Your task to perform on an android device: turn off picture-in-picture Image 0: 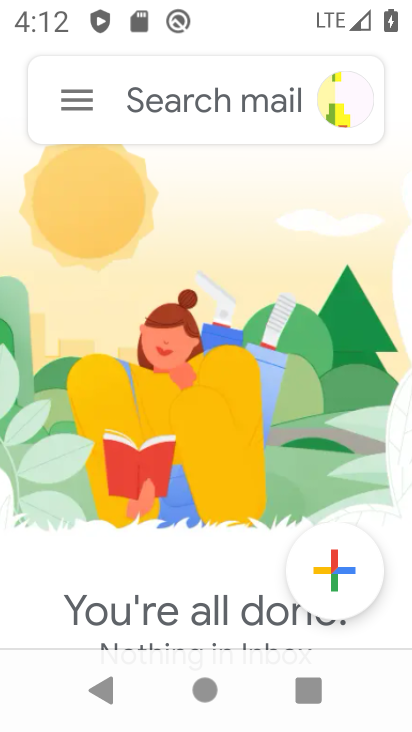
Step 0: press home button
Your task to perform on an android device: turn off picture-in-picture Image 1: 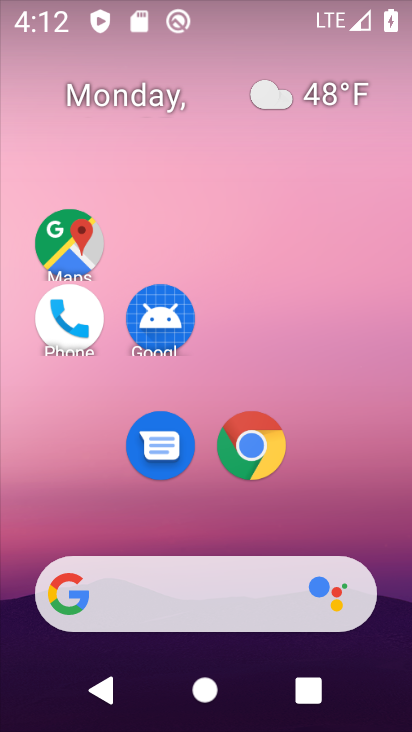
Step 1: drag from (321, 525) to (256, 68)
Your task to perform on an android device: turn off picture-in-picture Image 2: 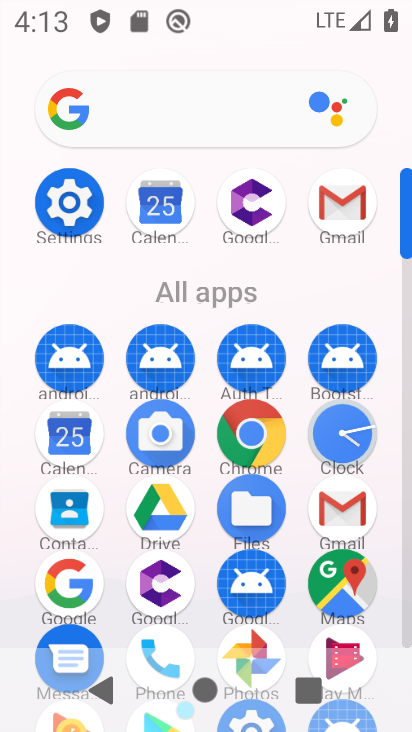
Step 2: click (69, 222)
Your task to perform on an android device: turn off picture-in-picture Image 3: 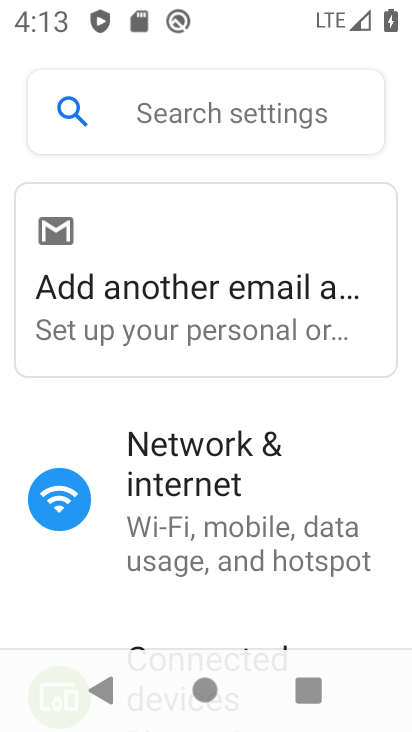
Step 3: drag from (259, 515) to (252, 107)
Your task to perform on an android device: turn off picture-in-picture Image 4: 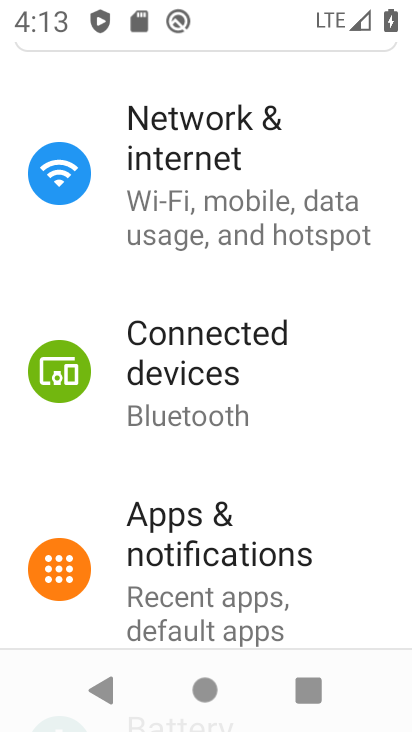
Step 4: drag from (221, 505) to (225, 207)
Your task to perform on an android device: turn off picture-in-picture Image 5: 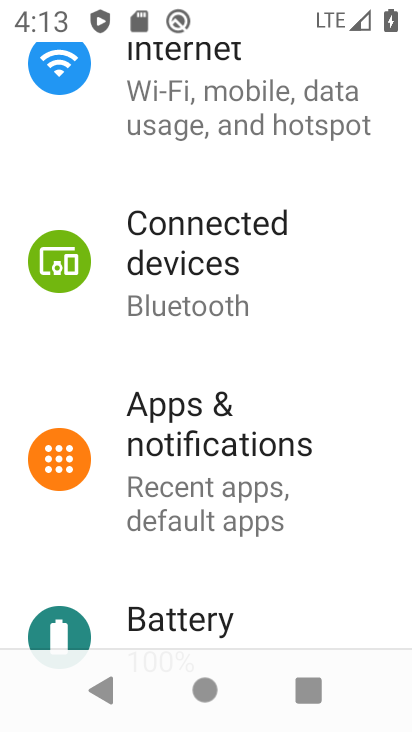
Step 5: click (232, 457)
Your task to perform on an android device: turn off picture-in-picture Image 6: 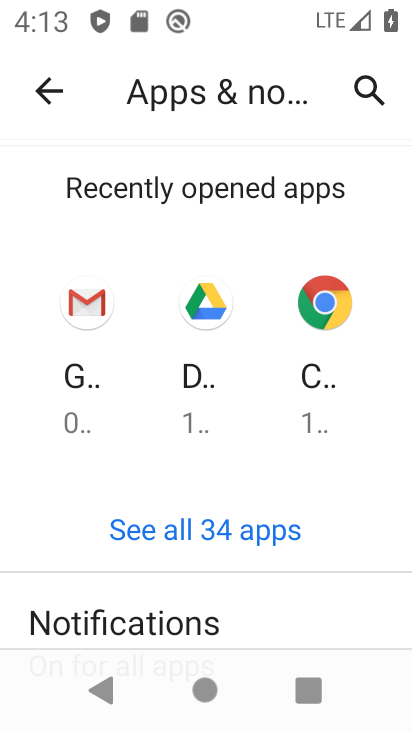
Step 6: drag from (241, 599) to (208, 79)
Your task to perform on an android device: turn off picture-in-picture Image 7: 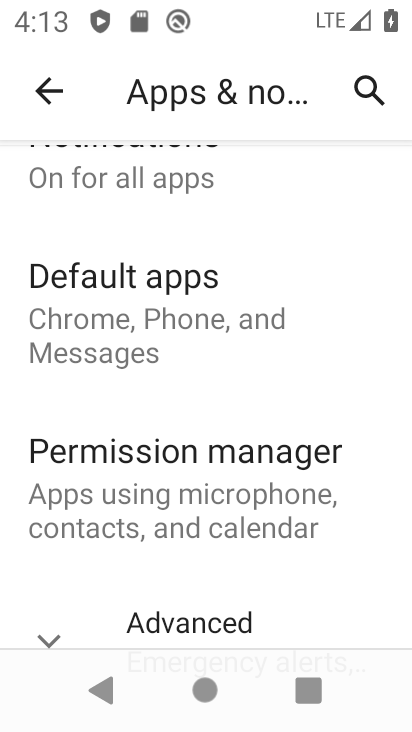
Step 7: click (228, 624)
Your task to perform on an android device: turn off picture-in-picture Image 8: 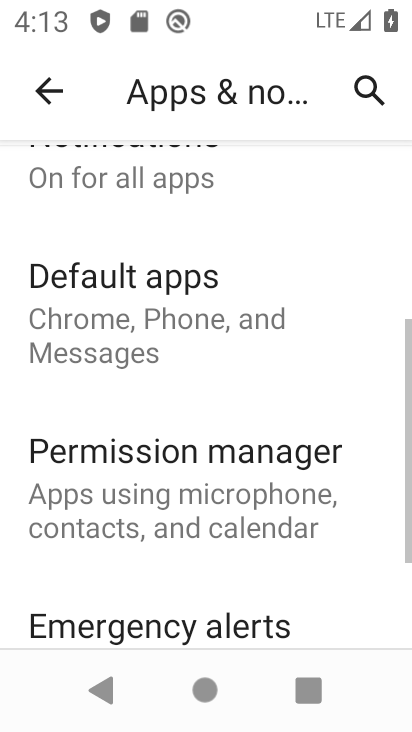
Step 8: drag from (230, 596) to (231, 378)
Your task to perform on an android device: turn off picture-in-picture Image 9: 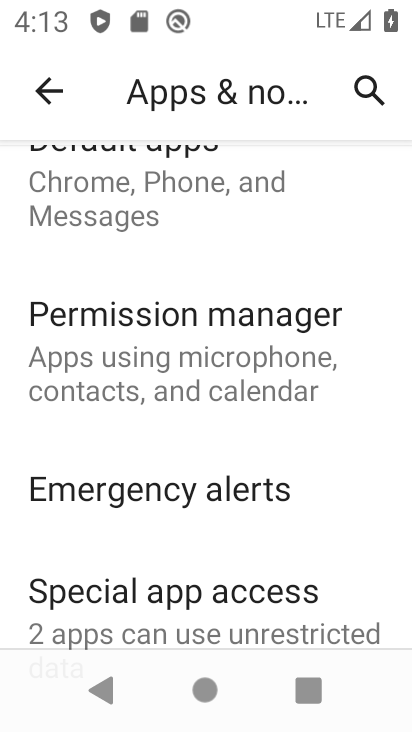
Step 9: click (228, 598)
Your task to perform on an android device: turn off picture-in-picture Image 10: 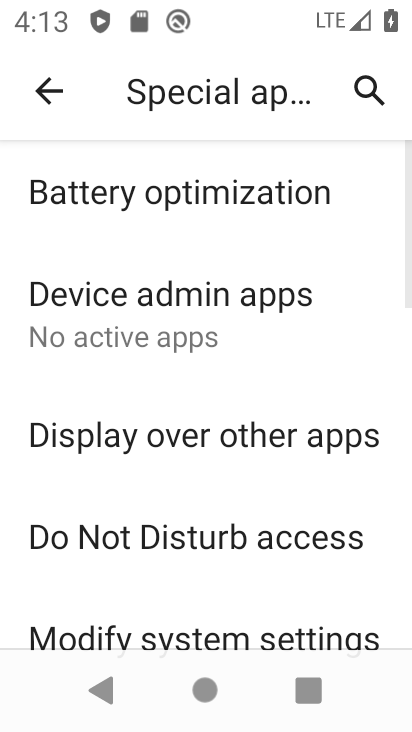
Step 10: drag from (228, 598) to (216, 250)
Your task to perform on an android device: turn off picture-in-picture Image 11: 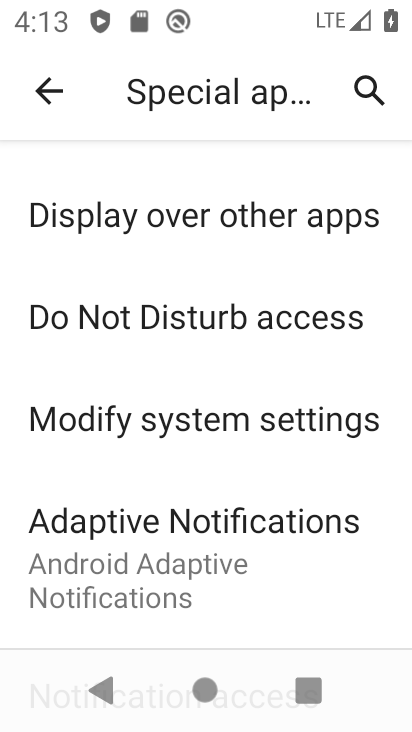
Step 11: drag from (258, 580) to (273, 206)
Your task to perform on an android device: turn off picture-in-picture Image 12: 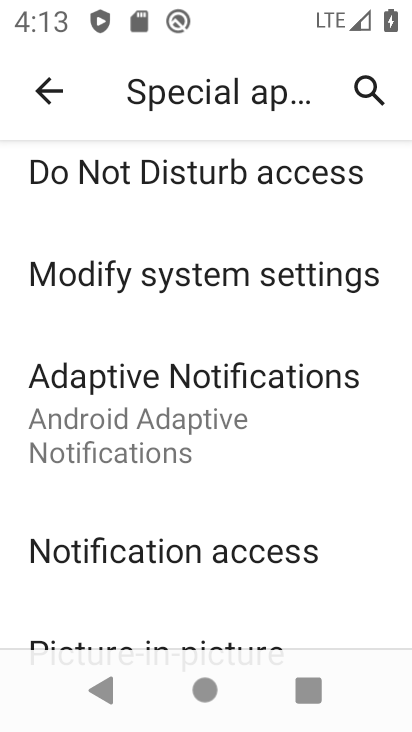
Step 12: click (200, 650)
Your task to perform on an android device: turn off picture-in-picture Image 13: 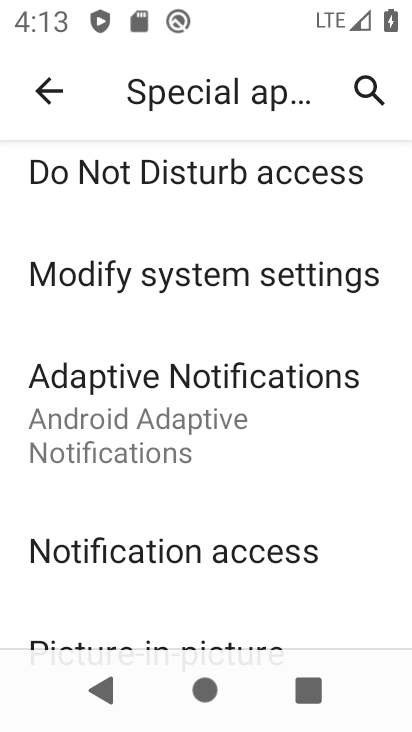
Step 13: drag from (201, 632) to (184, 375)
Your task to perform on an android device: turn off picture-in-picture Image 14: 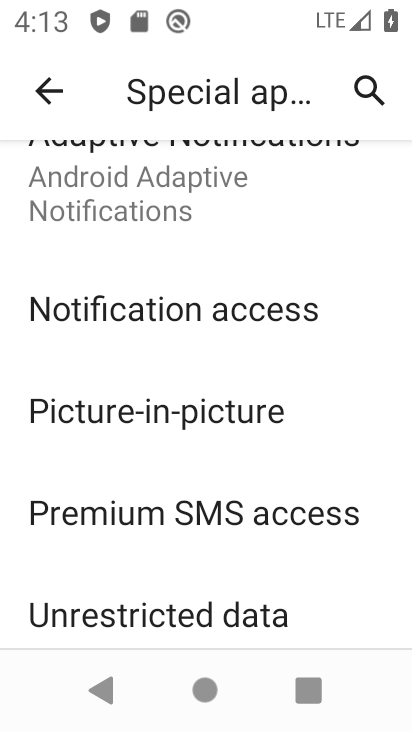
Step 14: click (186, 402)
Your task to perform on an android device: turn off picture-in-picture Image 15: 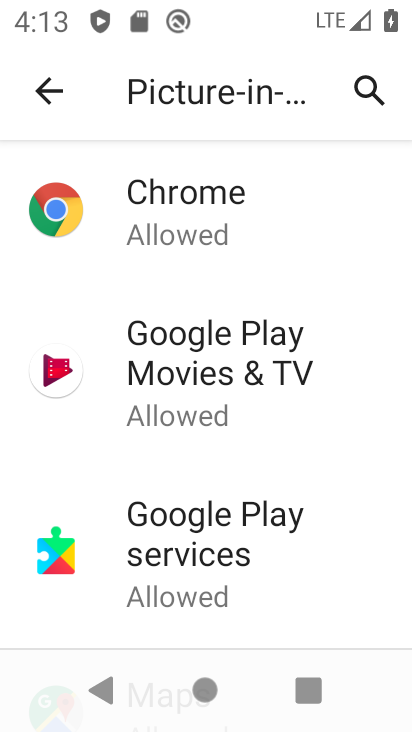
Step 15: click (189, 223)
Your task to perform on an android device: turn off picture-in-picture Image 16: 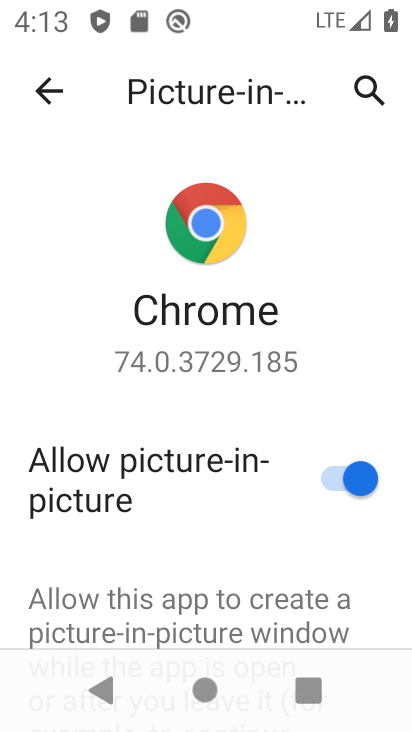
Step 16: click (354, 465)
Your task to perform on an android device: turn off picture-in-picture Image 17: 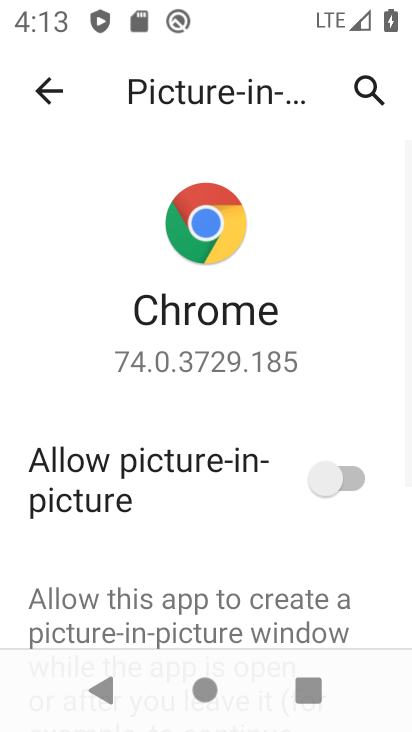
Step 17: task complete